Your task to perform on an android device: Go to network settings Image 0: 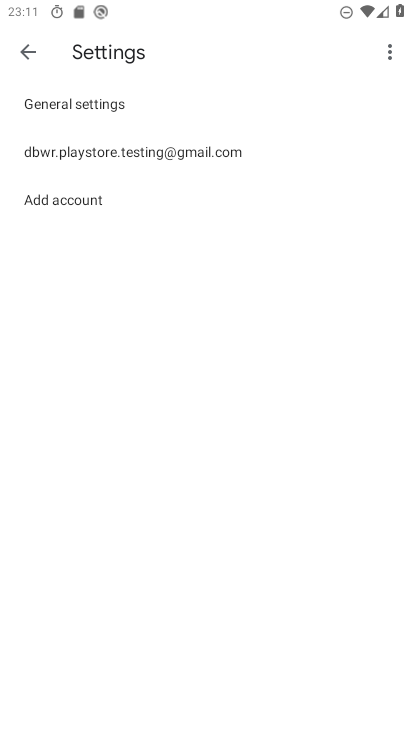
Step 0: press home button
Your task to perform on an android device: Go to network settings Image 1: 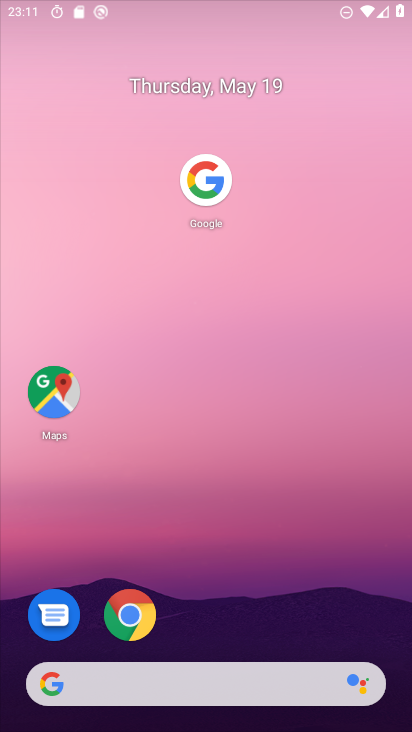
Step 1: drag from (265, 534) to (313, 52)
Your task to perform on an android device: Go to network settings Image 2: 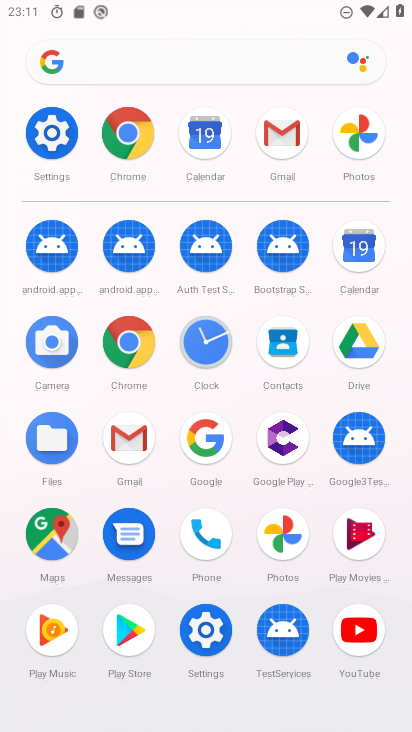
Step 2: click (56, 136)
Your task to perform on an android device: Go to network settings Image 3: 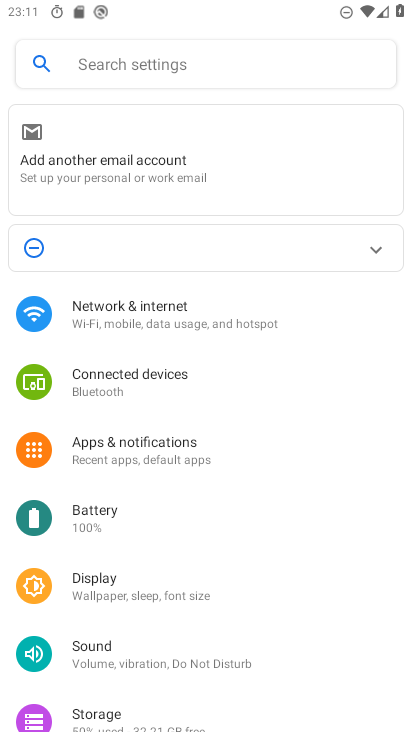
Step 3: click (147, 313)
Your task to perform on an android device: Go to network settings Image 4: 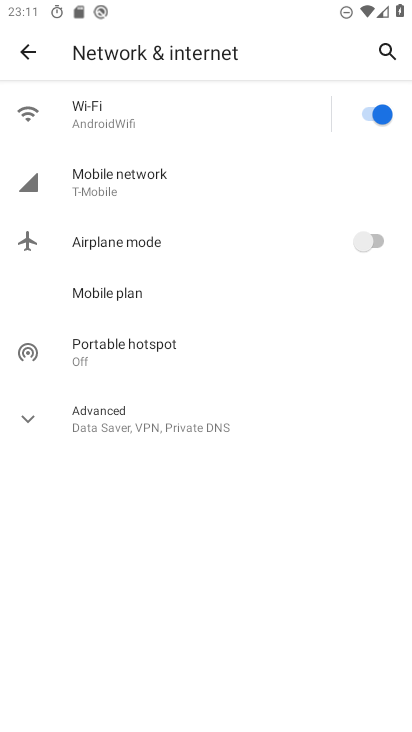
Step 4: click (149, 188)
Your task to perform on an android device: Go to network settings Image 5: 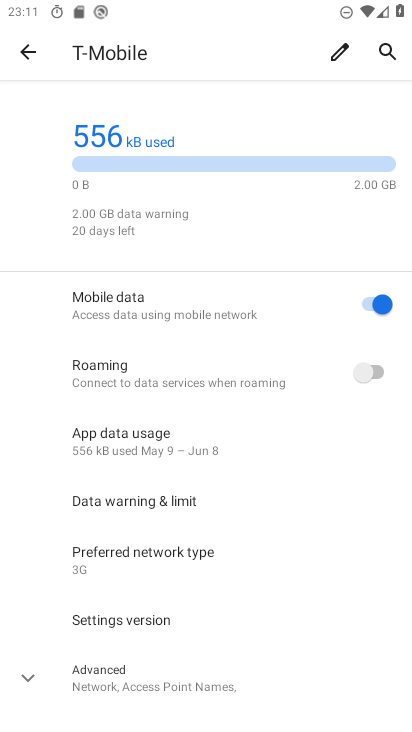
Step 5: task complete